Your task to perform on an android device: check battery use Image 0: 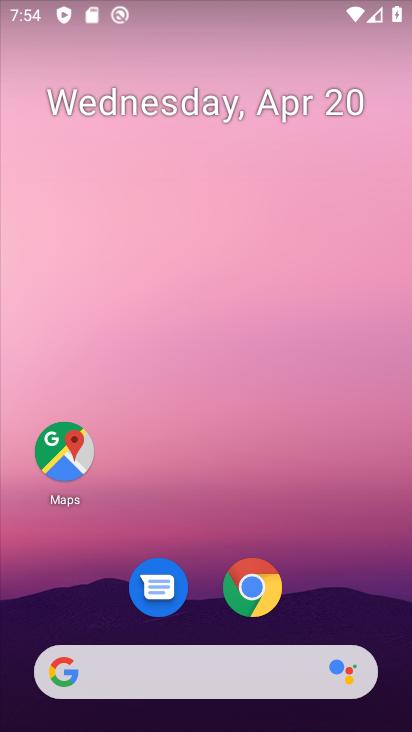
Step 0: drag from (329, 586) to (352, 138)
Your task to perform on an android device: check battery use Image 1: 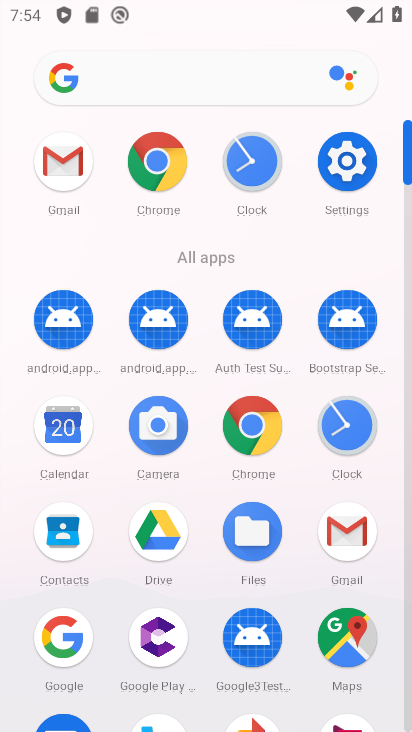
Step 1: click (360, 172)
Your task to perform on an android device: check battery use Image 2: 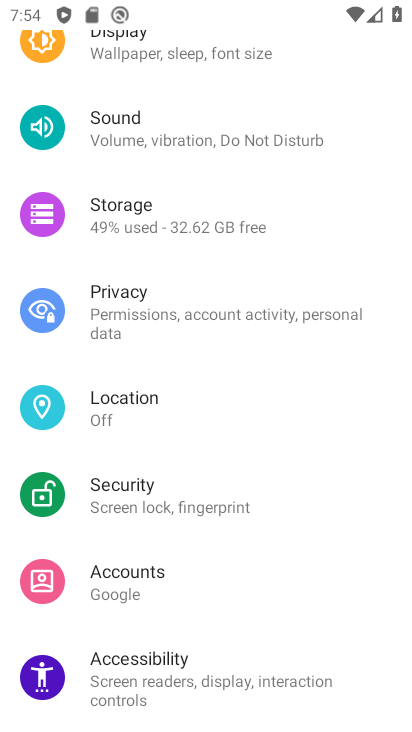
Step 2: drag from (382, 201) to (371, 416)
Your task to perform on an android device: check battery use Image 3: 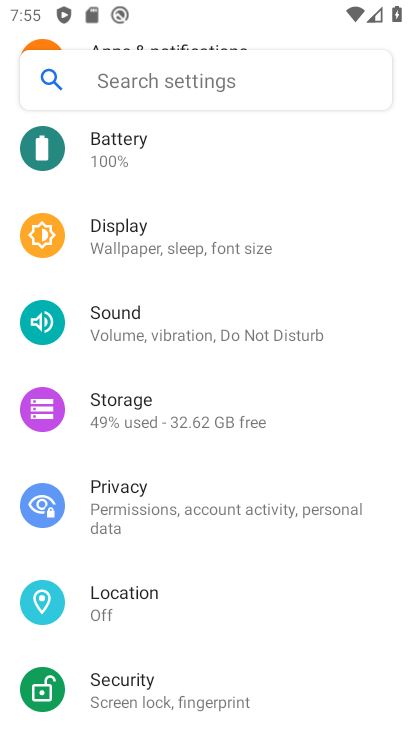
Step 3: drag from (373, 216) to (372, 424)
Your task to perform on an android device: check battery use Image 4: 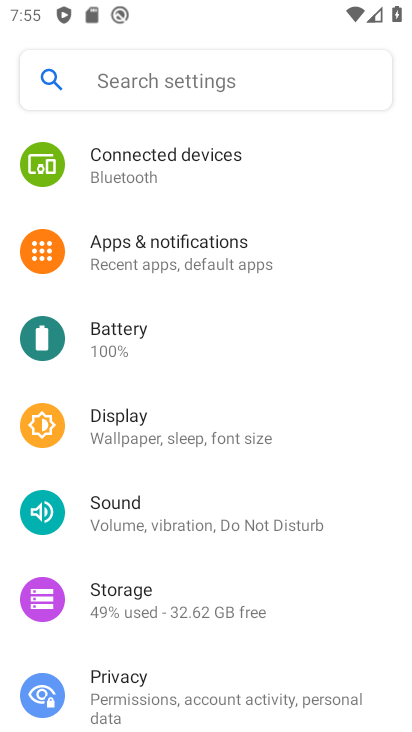
Step 4: drag from (371, 235) to (365, 412)
Your task to perform on an android device: check battery use Image 5: 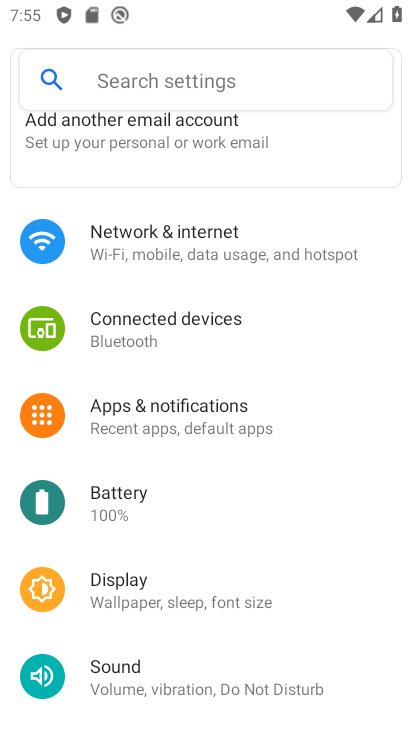
Step 5: drag from (367, 492) to (376, 332)
Your task to perform on an android device: check battery use Image 6: 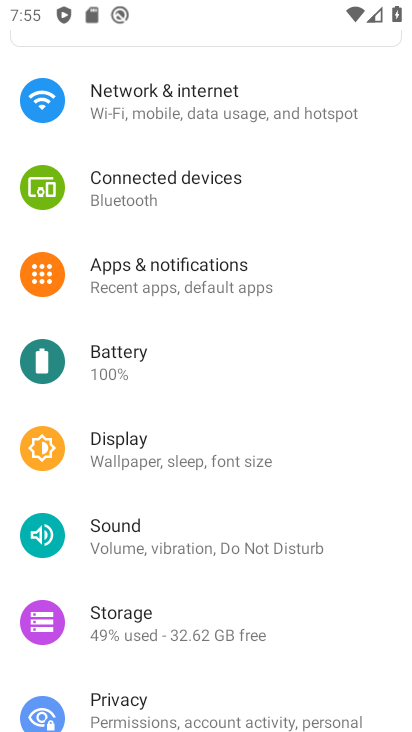
Step 6: drag from (347, 492) to (338, 353)
Your task to perform on an android device: check battery use Image 7: 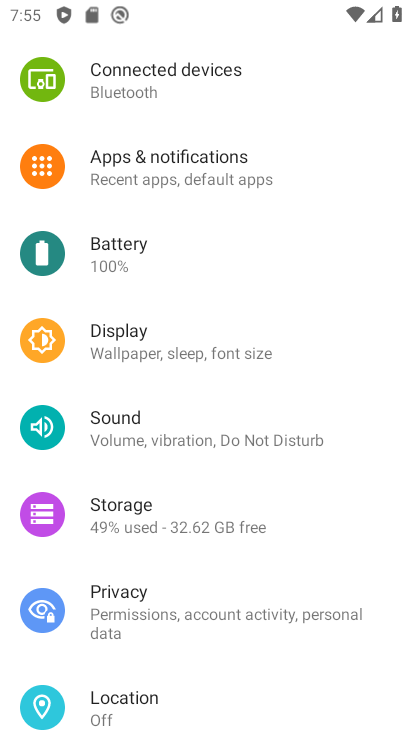
Step 7: click (95, 259)
Your task to perform on an android device: check battery use Image 8: 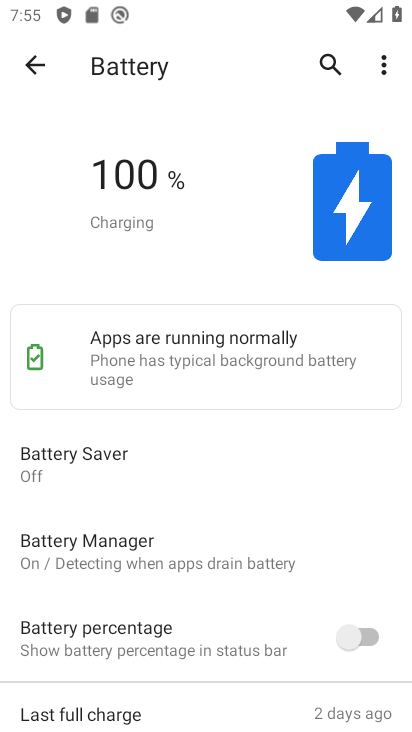
Step 8: click (382, 67)
Your task to perform on an android device: check battery use Image 9: 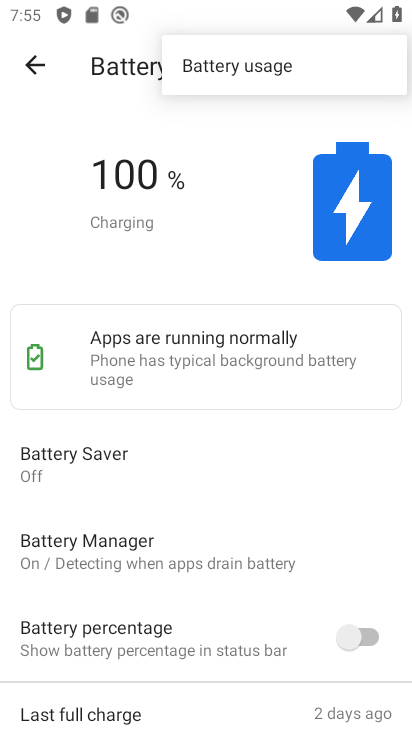
Step 9: click (325, 68)
Your task to perform on an android device: check battery use Image 10: 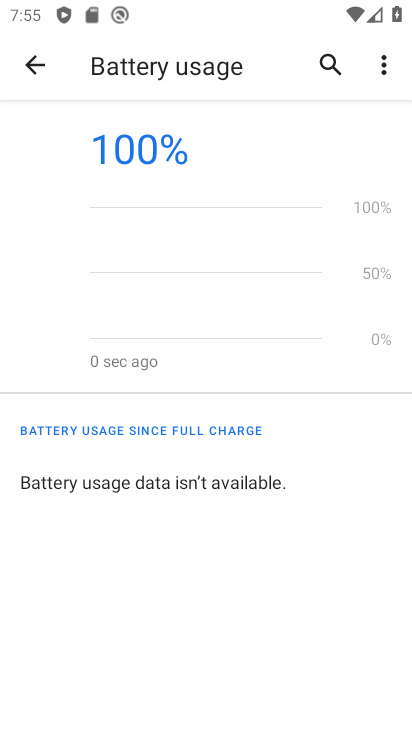
Step 10: task complete